Your task to perform on an android device: Open maps Image 0: 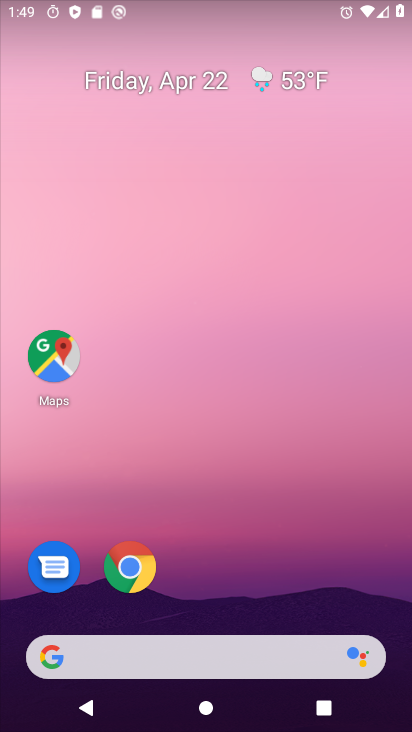
Step 0: click (47, 350)
Your task to perform on an android device: Open maps Image 1: 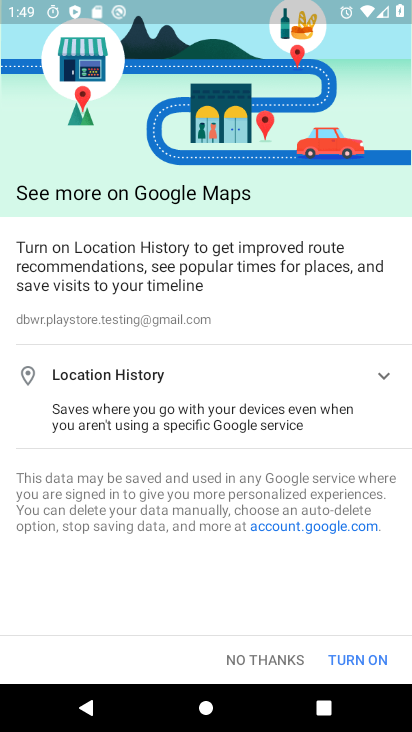
Step 1: click (267, 656)
Your task to perform on an android device: Open maps Image 2: 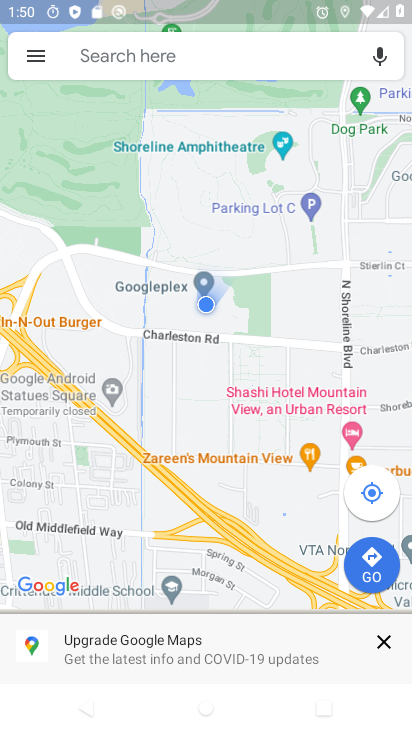
Step 2: task complete